Your task to perform on an android device: see sites visited before in the chrome app Image 0: 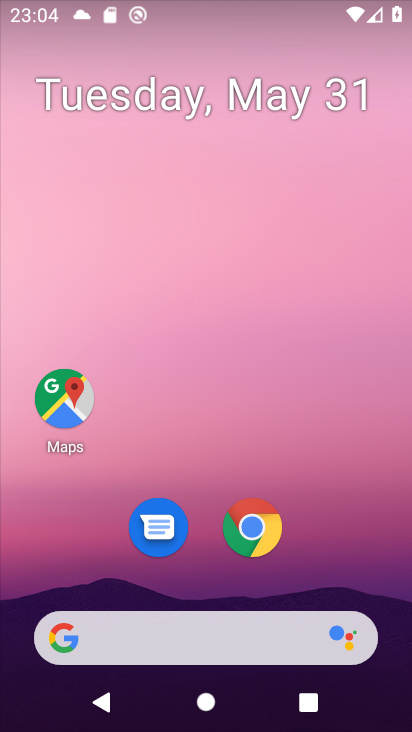
Step 0: drag from (346, 520) to (285, 66)
Your task to perform on an android device: see sites visited before in the chrome app Image 1: 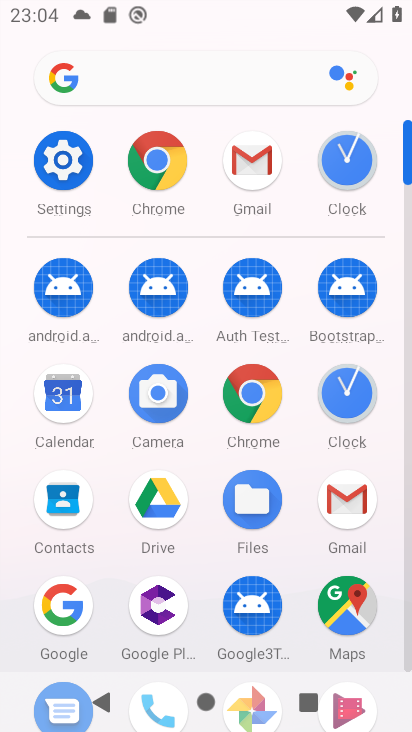
Step 1: click (175, 163)
Your task to perform on an android device: see sites visited before in the chrome app Image 2: 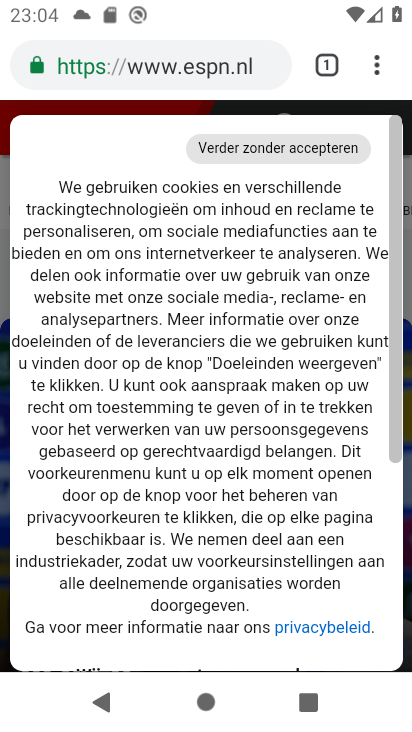
Step 2: click (363, 61)
Your task to perform on an android device: see sites visited before in the chrome app Image 3: 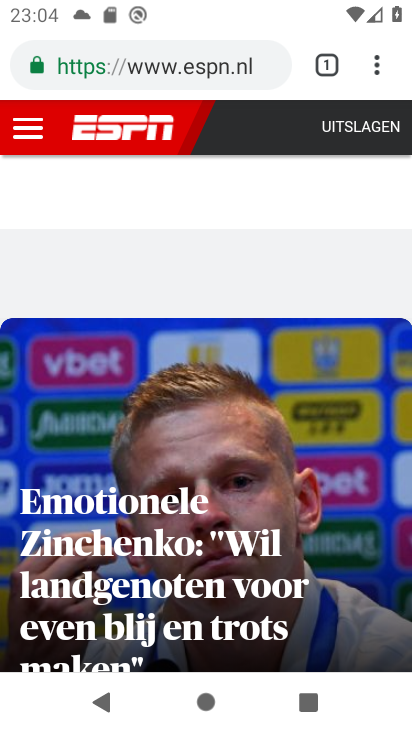
Step 3: click (377, 60)
Your task to perform on an android device: see sites visited before in the chrome app Image 4: 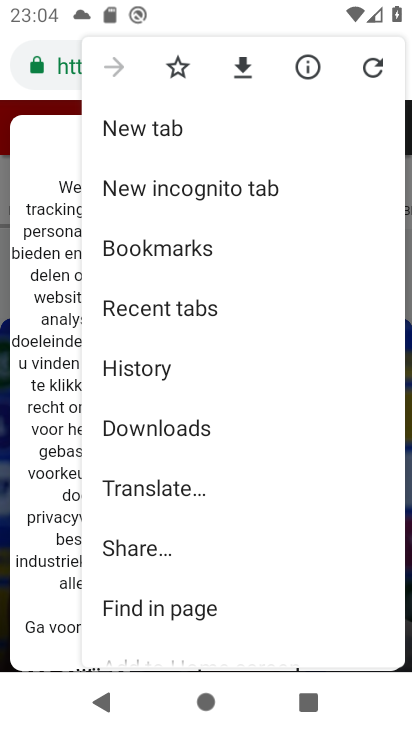
Step 4: click (172, 364)
Your task to perform on an android device: see sites visited before in the chrome app Image 5: 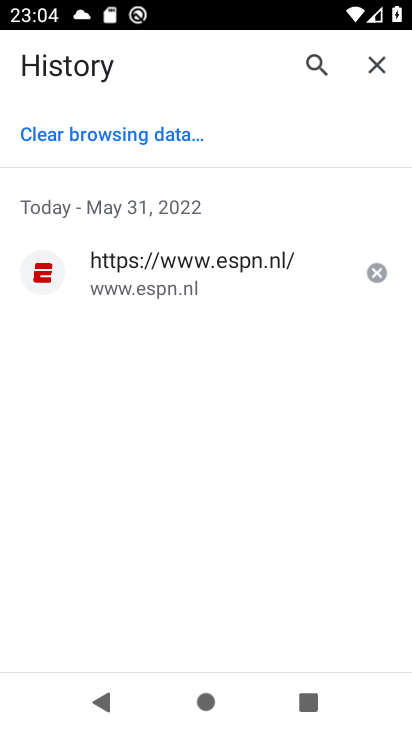
Step 5: task complete